Your task to perform on an android device: Open Yahoo.com Image 0: 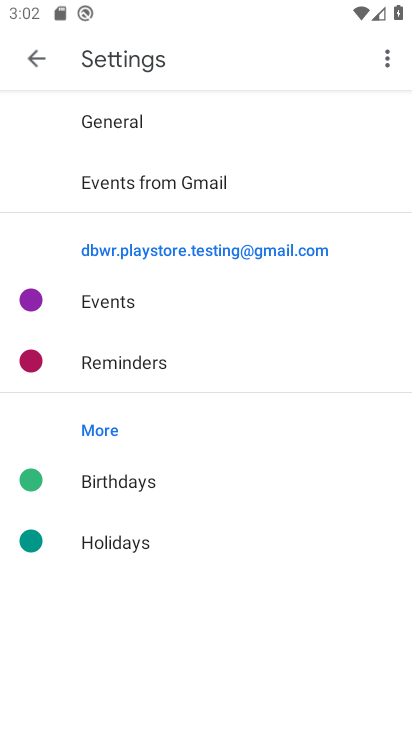
Step 0: press home button
Your task to perform on an android device: Open Yahoo.com Image 1: 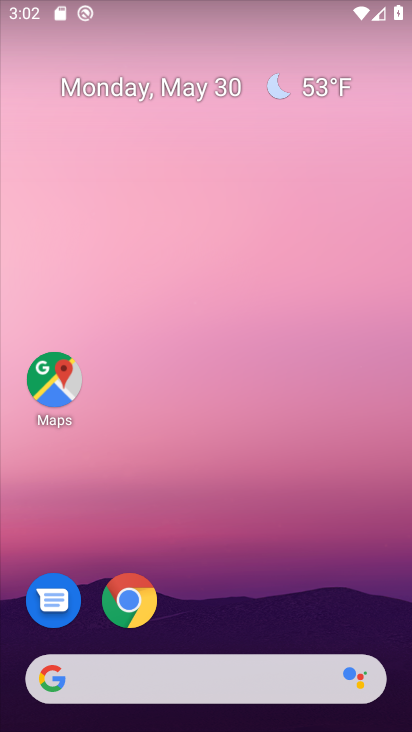
Step 1: drag from (331, 563) to (158, 2)
Your task to perform on an android device: Open Yahoo.com Image 2: 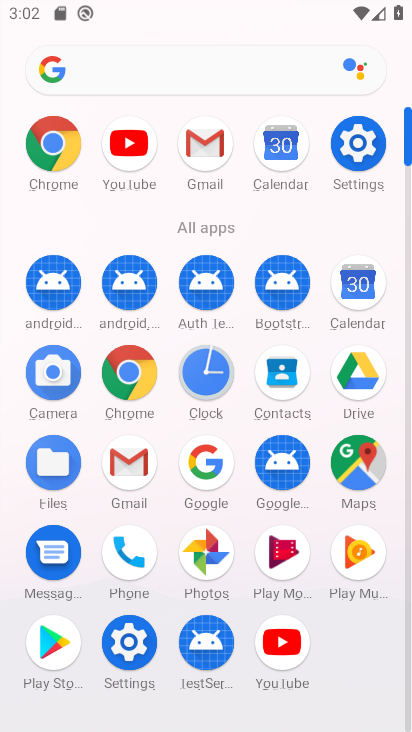
Step 2: click (61, 163)
Your task to perform on an android device: Open Yahoo.com Image 3: 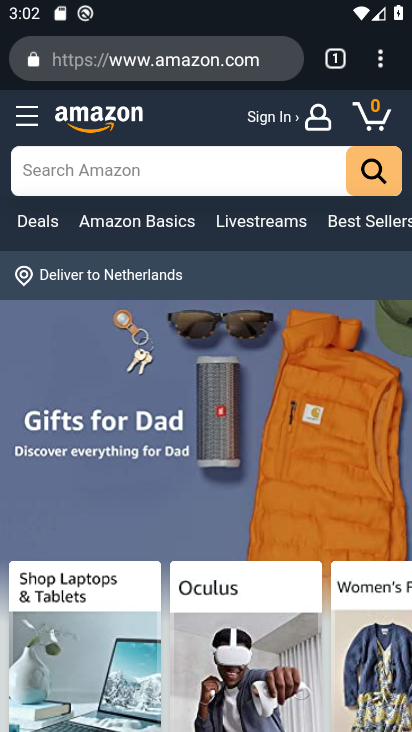
Step 3: click (135, 75)
Your task to perform on an android device: Open Yahoo.com Image 4: 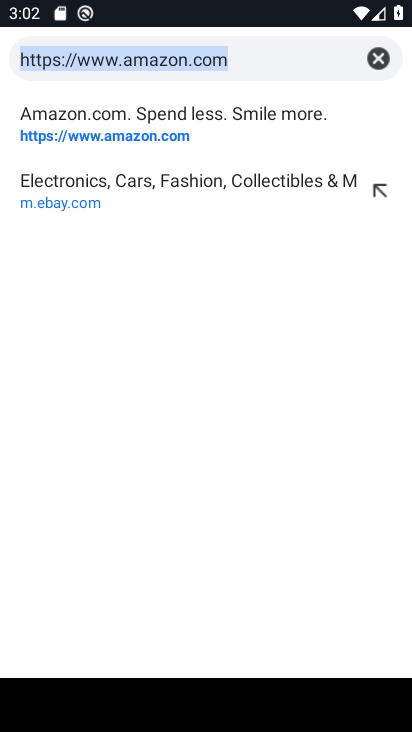
Step 4: click (377, 65)
Your task to perform on an android device: Open Yahoo.com Image 5: 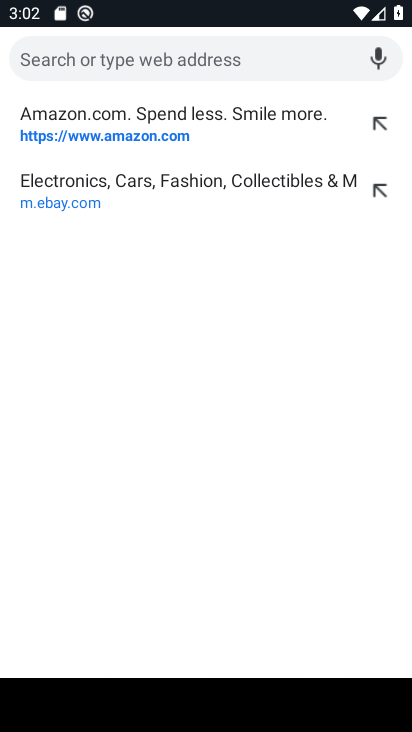
Step 5: type "yahoo"
Your task to perform on an android device: Open Yahoo.com Image 6: 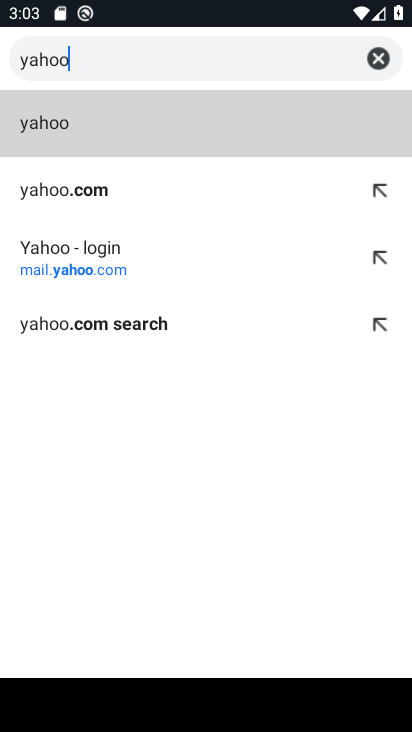
Step 6: click (73, 197)
Your task to perform on an android device: Open Yahoo.com Image 7: 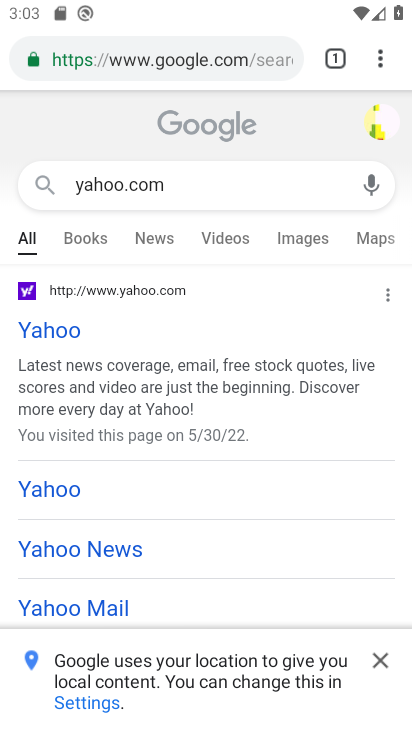
Step 7: click (57, 329)
Your task to perform on an android device: Open Yahoo.com Image 8: 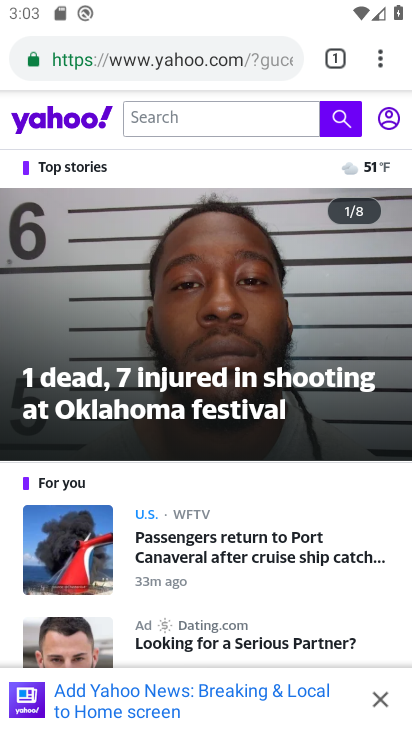
Step 8: task complete